Your task to perform on an android device: When is my next appointment? Image 0: 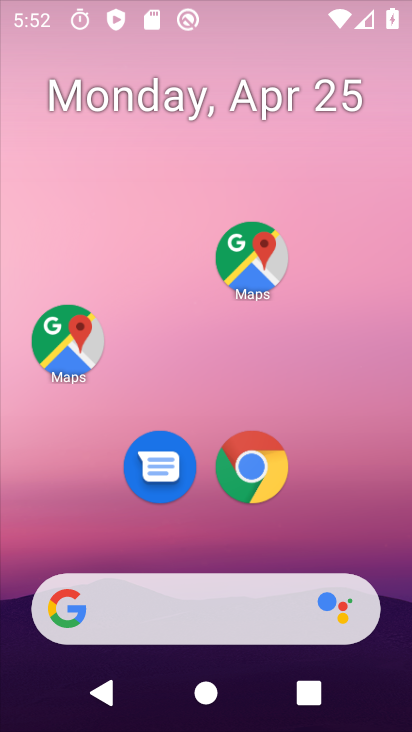
Step 0: drag from (219, 521) to (180, 13)
Your task to perform on an android device: When is my next appointment? Image 1: 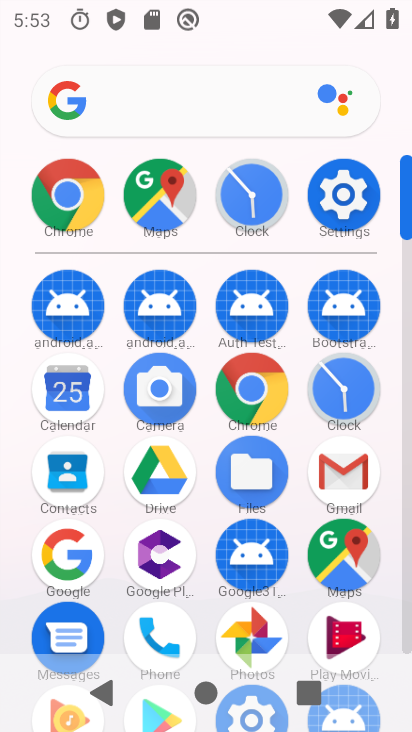
Step 1: click (65, 393)
Your task to perform on an android device: When is my next appointment? Image 2: 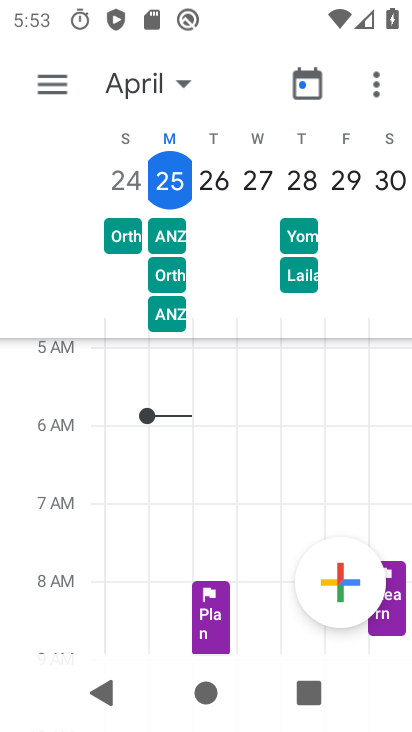
Step 2: task complete